Your task to perform on an android device: open a bookmark in the chrome app Image 0: 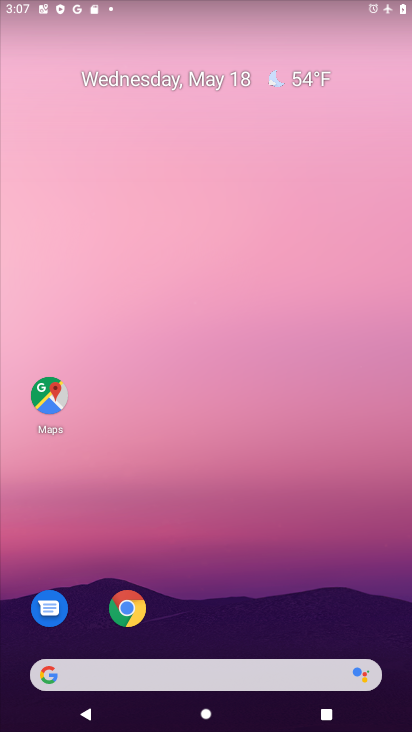
Step 0: click (133, 612)
Your task to perform on an android device: open a bookmark in the chrome app Image 1: 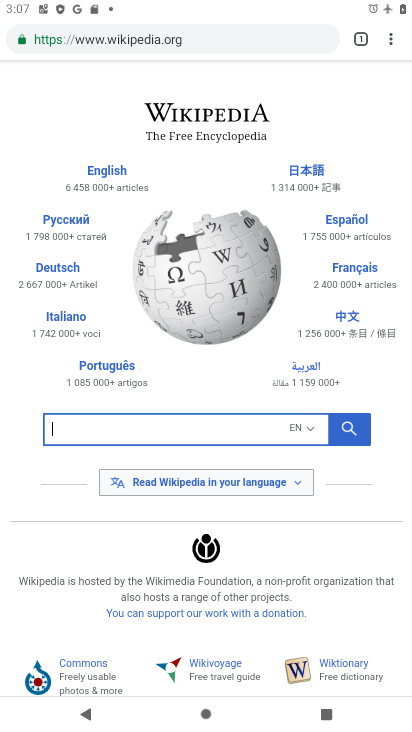
Step 1: click (393, 38)
Your task to perform on an android device: open a bookmark in the chrome app Image 2: 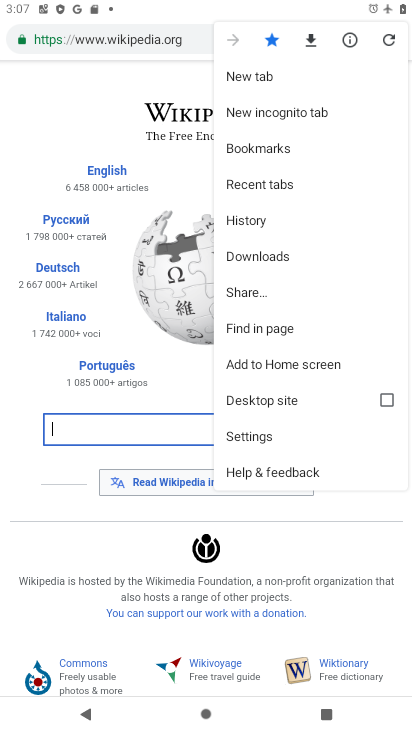
Step 2: click (259, 150)
Your task to perform on an android device: open a bookmark in the chrome app Image 3: 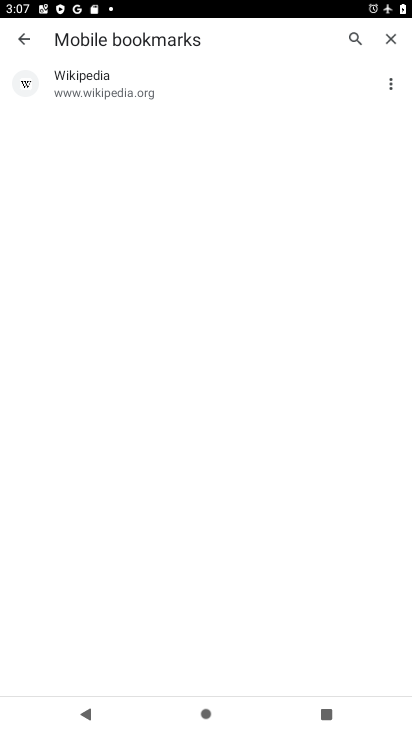
Step 3: click (81, 96)
Your task to perform on an android device: open a bookmark in the chrome app Image 4: 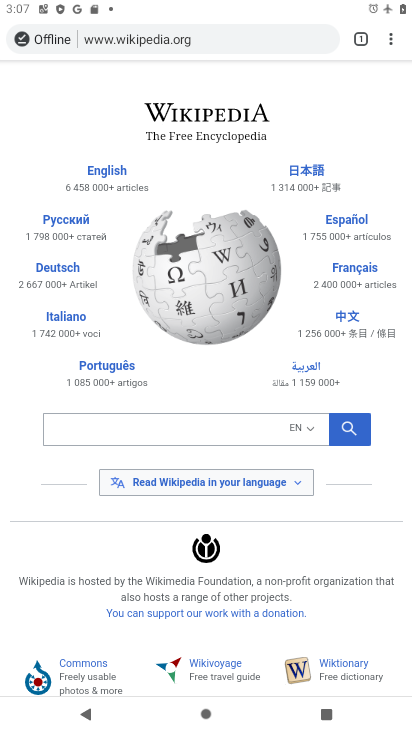
Step 4: task complete